Your task to perform on an android device: delete location history Image 0: 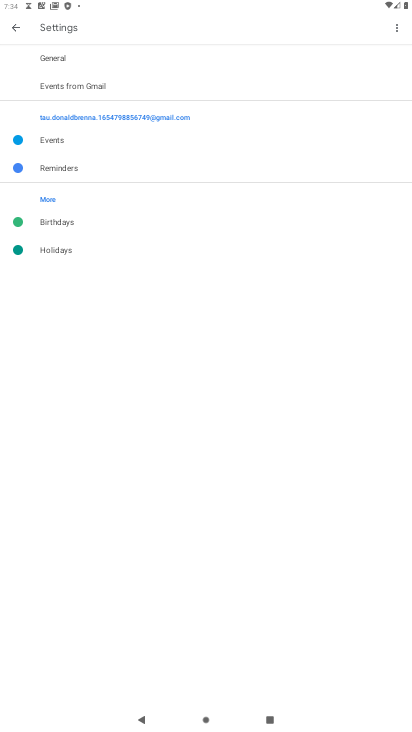
Step 0: press home button
Your task to perform on an android device: delete location history Image 1: 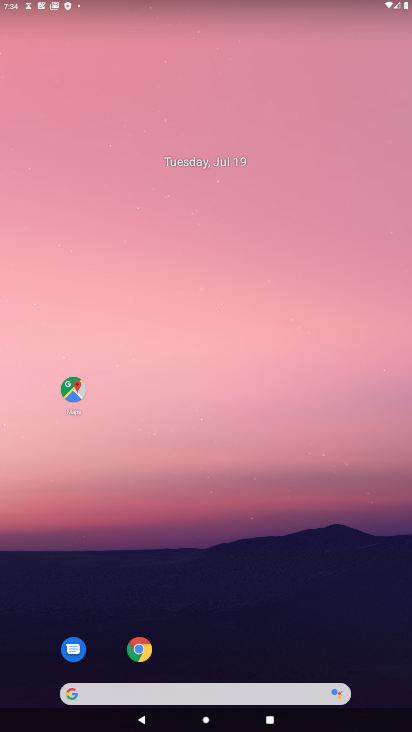
Step 1: click (72, 391)
Your task to perform on an android device: delete location history Image 2: 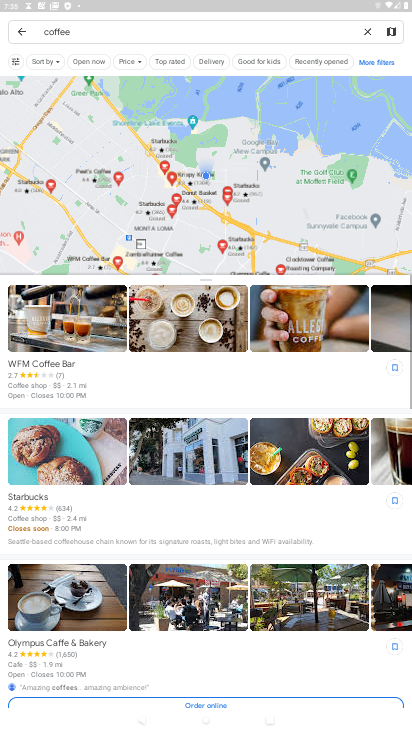
Step 2: press back button
Your task to perform on an android device: delete location history Image 3: 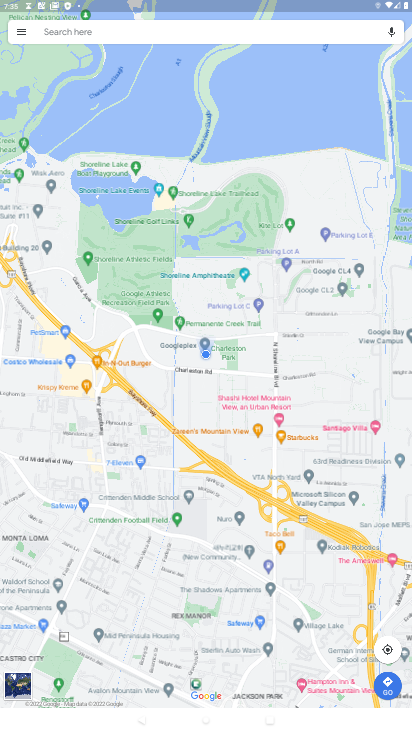
Step 3: click (20, 32)
Your task to perform on an android device: delete location history Image 4: 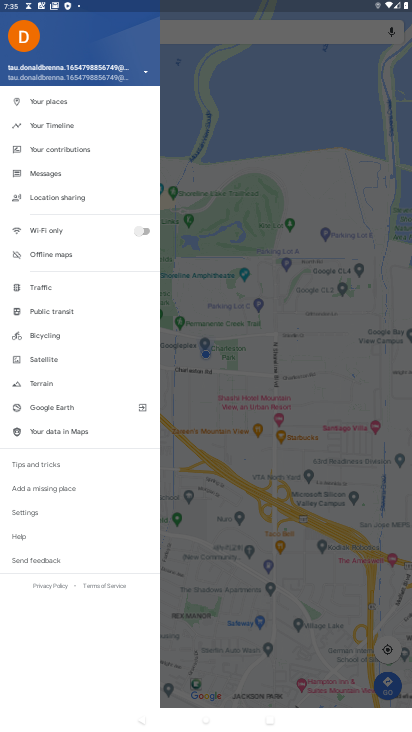
Step 4: click (28, 514)
Your task to perform on an android device: delete location history Image 5: 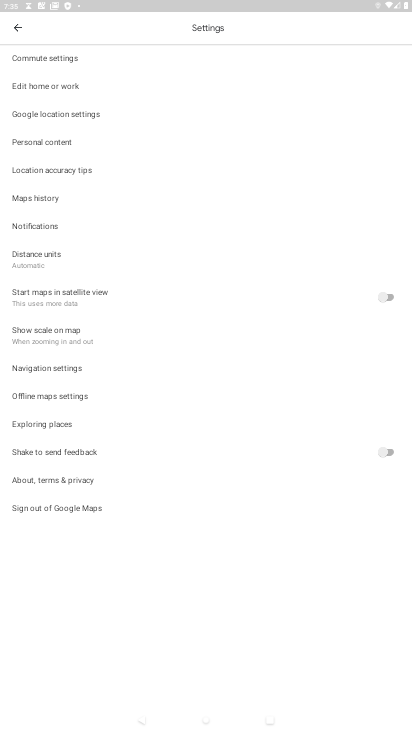
Step 5: click (53, 145)
Your task to perform on an android device: delete location history Image 6: 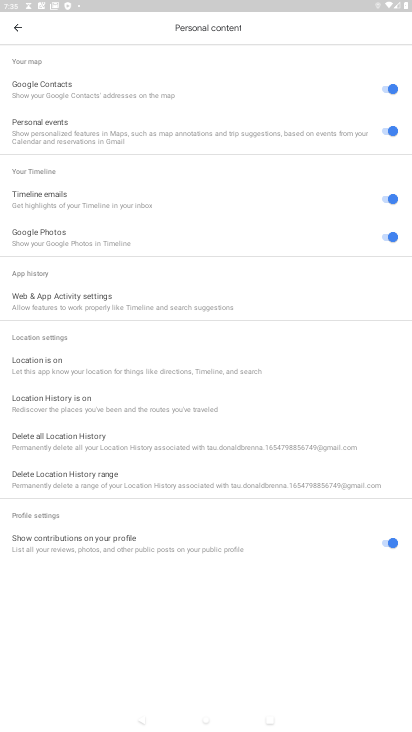
Step 6: click (83, 453)
Your task to perform on an android device: delete location history Image 7: 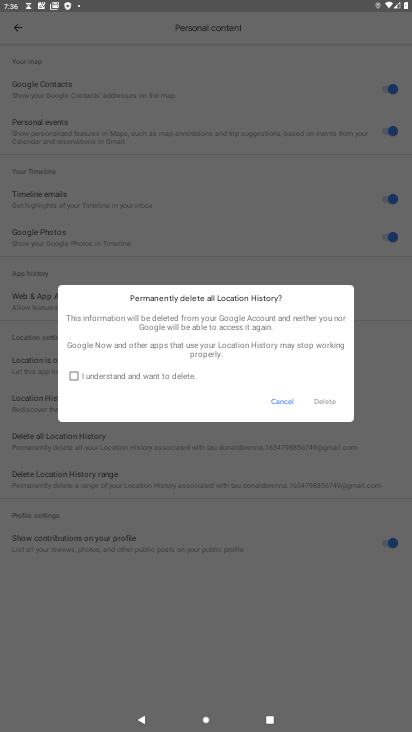
Step 7: click (74, 373)
Your task to perform on an android device: delete location history Image 8: 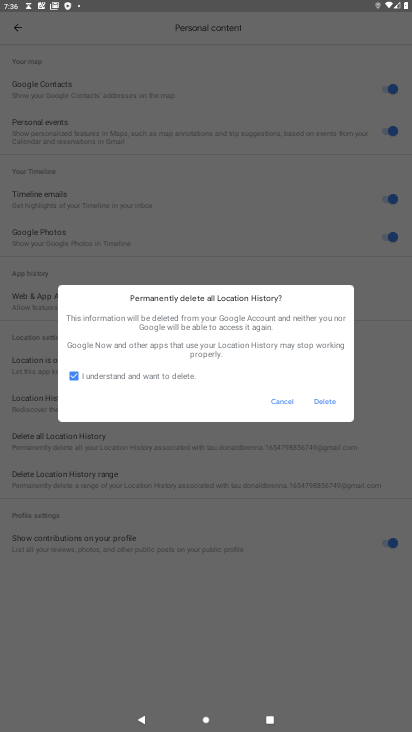
Step 8: click (327, 401)
Your task to perform on an android device: delete location history Image 9: 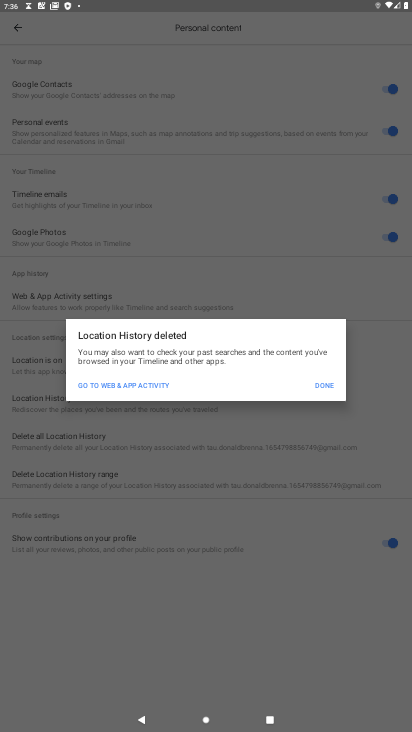
Step 9: click (322, 383)
Your task to perform on an android device: delete location history Image 10: 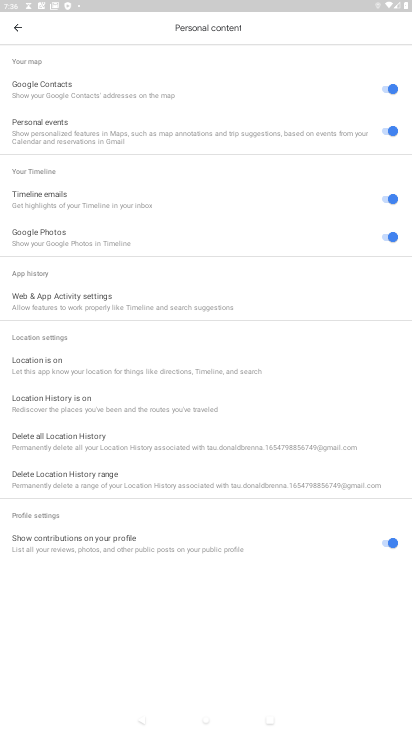
Step 10: task complete